Your task to perform on an android device: Open settings Image 0: 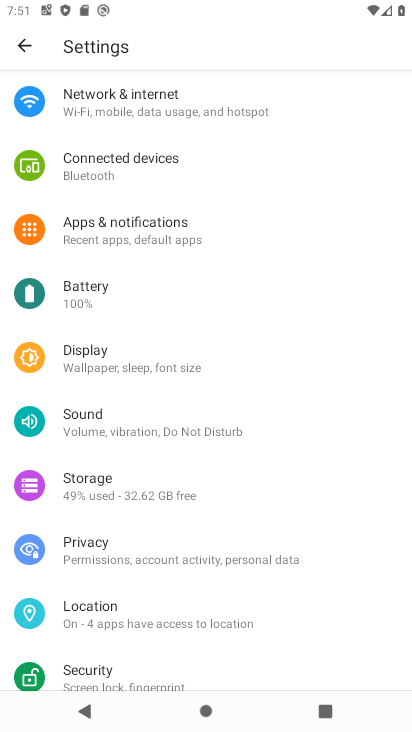
Step 0: drag from (259, 563) to (235, 203)
Your task to perform on an android device: Open settings Image 1: 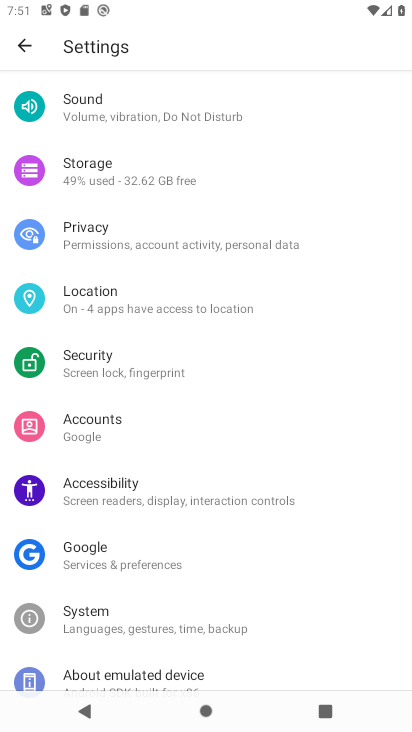
Step 1: task complete